Your task to perform on an android device: What's the weather going to be this weekend? Image 0: 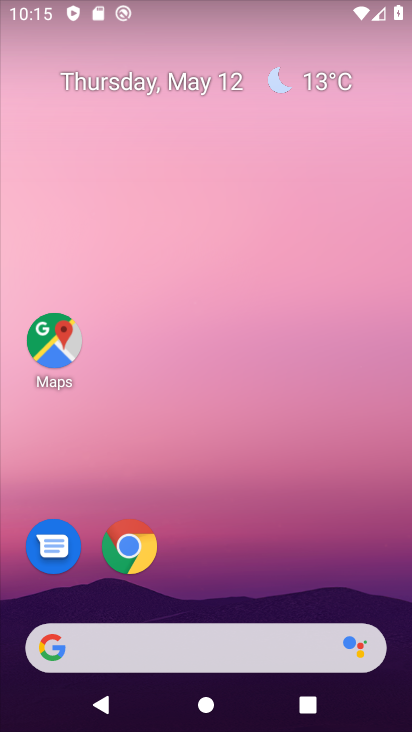
Step 0: drag from (263, 658) to (238, 282)
Your task to perform on an android device: What's the weather going to be this weekend? Image 1: 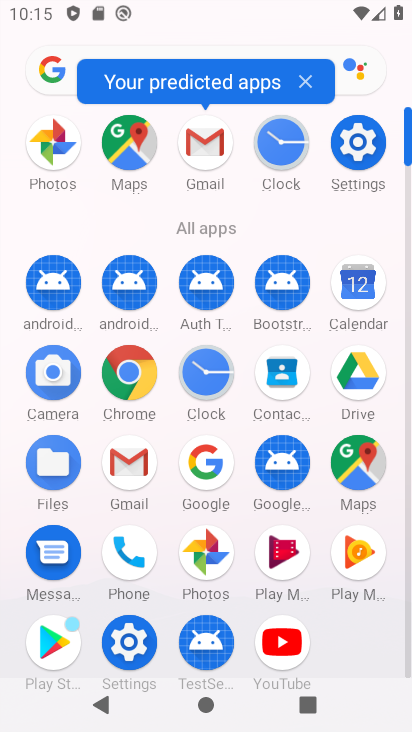
Step 1: click (308, 84)
Your task to perform on an android device: What's the weather going to be this weekend? Image 2: 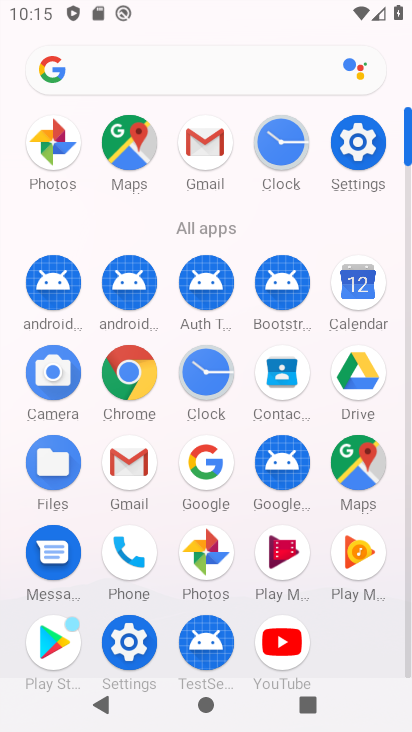
Step 2: click (158, 78)
Your task to perform on an android device: What's the weather going to be this weekend? Image 3: 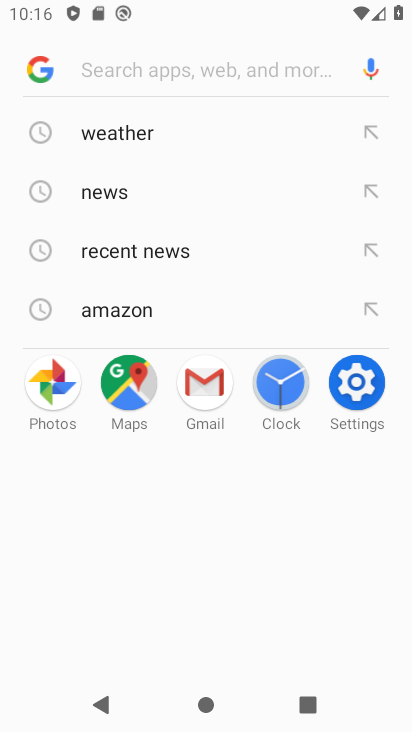
Step 3: click (188, 133)
Your task to perform on an android device: What's the weather going to be this weekend? Image 4: 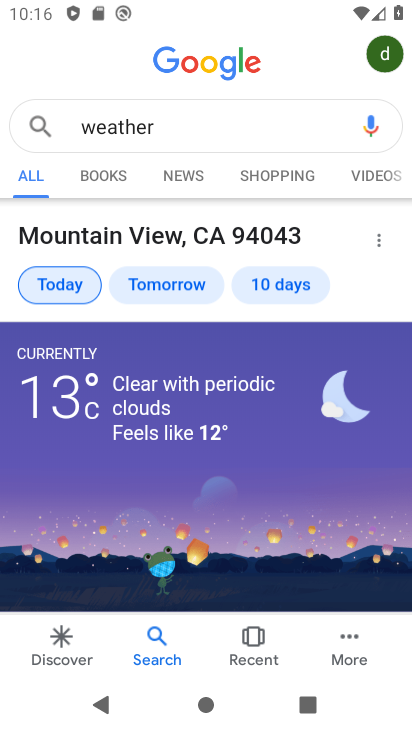
Step 4: click (251, 276)
Your task to perform on an android device: What's the weather going to be this weekend? Image 5: 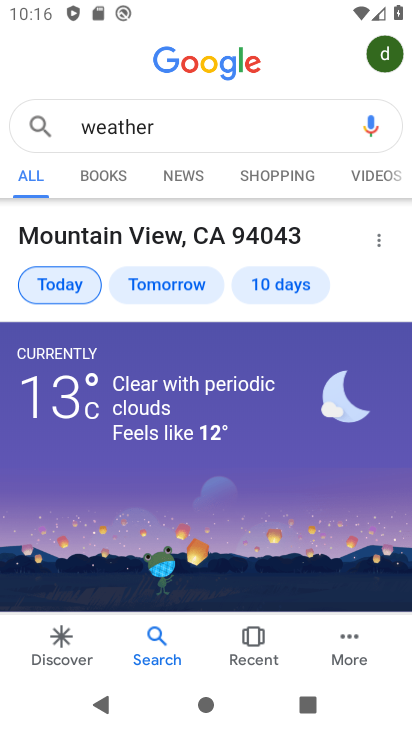
Step 5: click (277, 274)
Your task to perform on an android device: What's the weather going to be this weekend? Image 6: 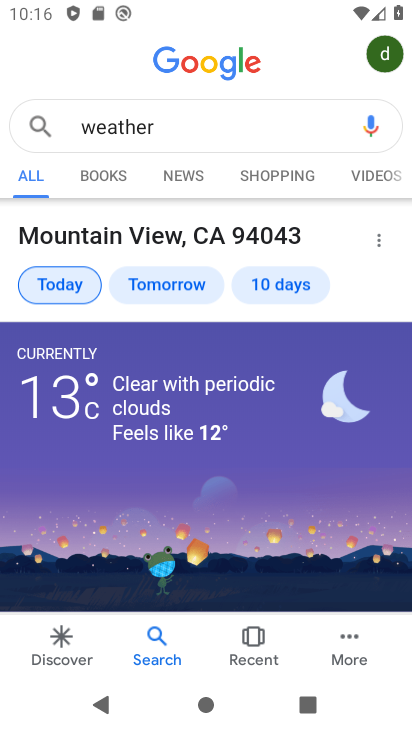
Step 6: click (280, 275)
Your task to perform on an android device: What's the weather going to be this weekend? Image 7: 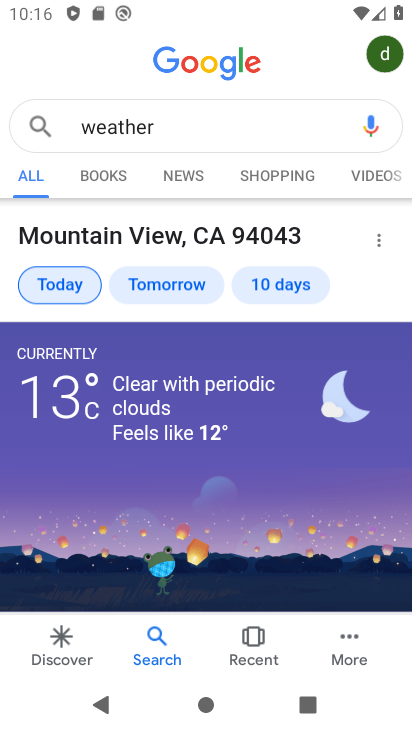
Step 7: click (282, 287)
Your task to perform on an android device: What's the weather going to be this weekend? Image 8: 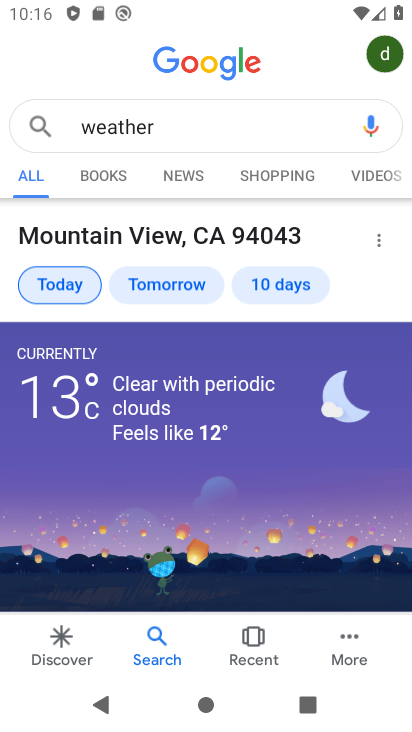
Step 8: drag from (230, 462) to (342, 186)
Your task to perform on an android device: What's the weather going to be this weekend? Image 9: 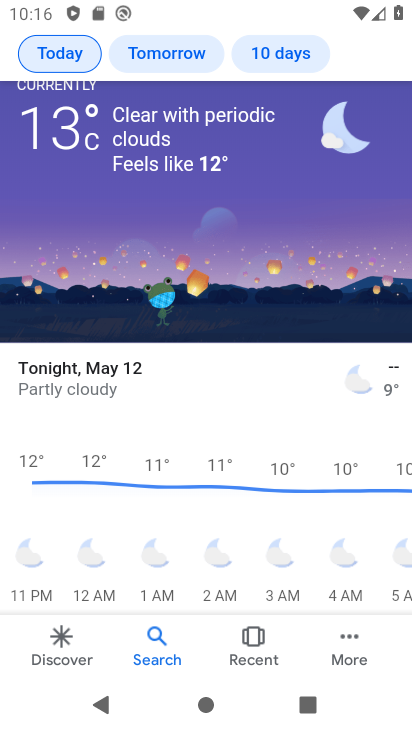
Step 9: drag from (186, 518) to (231, 283)
Your task to perform on an android device: What's the weather going to be this weekend? Image 10: 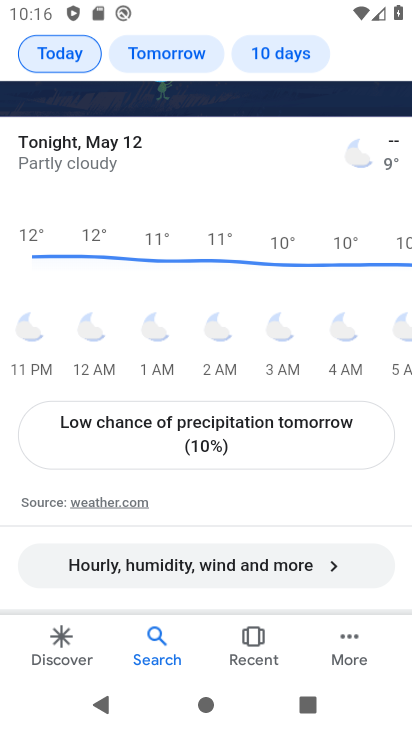
Step 10: drag from (209, 528) to (252, 275)
Your task to perform on an android device: What's the weather going to be this weekend? Image 11: 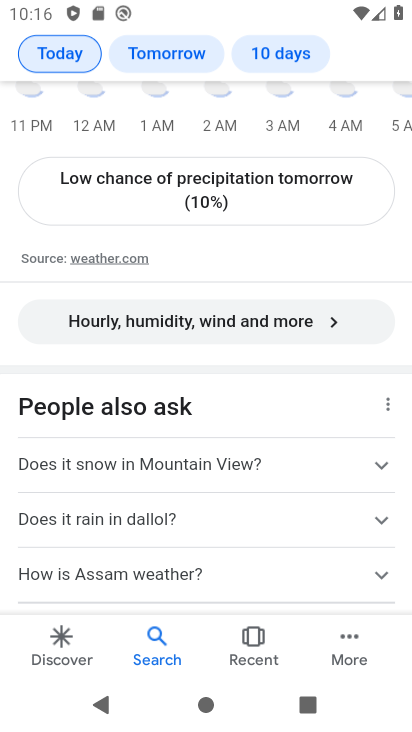
Step 11: drag from (153, 514) to (222, 264)
Your task to perform on an android device: What's the weather going to be this weekend? Image 12: 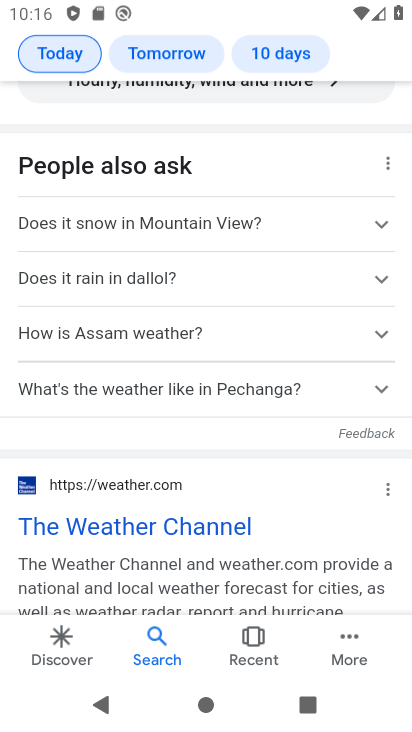
Step 12: click (172, 519)
Your task to perform on an android device: What's the weather going to be this weekend? Image 13: 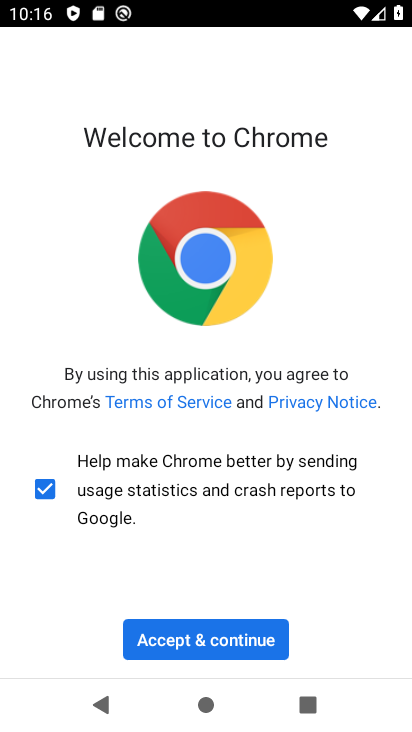
Step 13: click (207, 646)
Your task to perform on an android device: What's the weather going to be this weekend? Image 14: 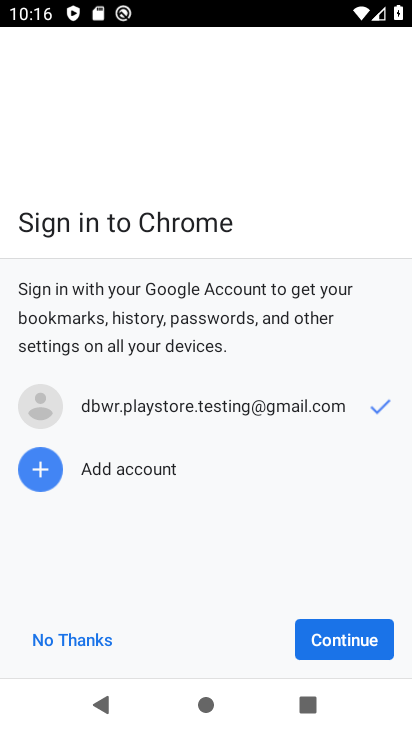
Step 14: click (378, 620)
Your task to perform on an android device: What's the weather going to be this weekend? Image 15: 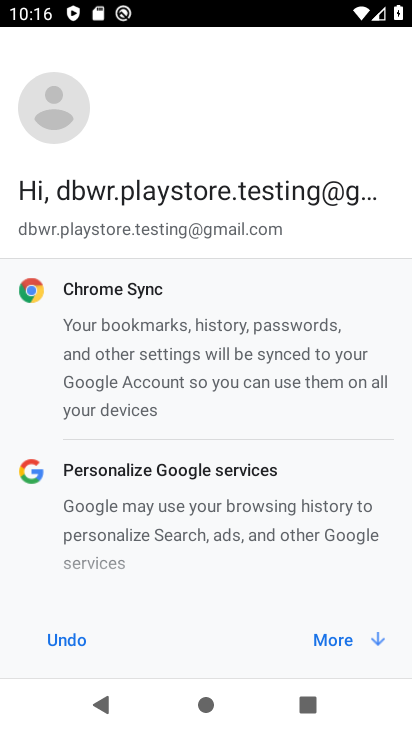
Step 15: click (349, 640)
Your task to perform on an android device: What's the weather going to be this weekend? Image 16: 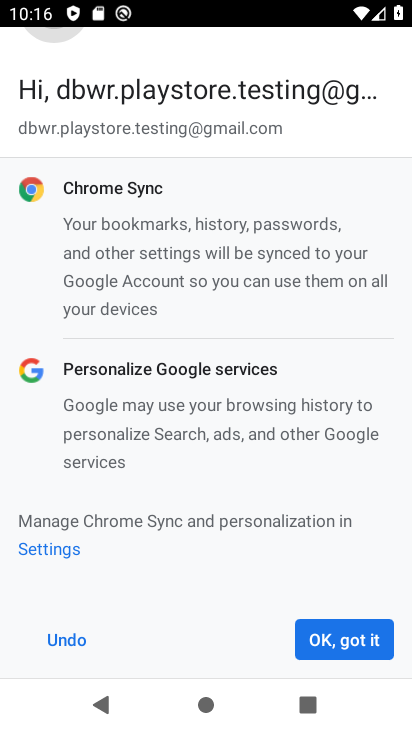
Step 16: click (353, 630)
Your task to perform on an android device: What's the weather going to be this weekend? Image 17: 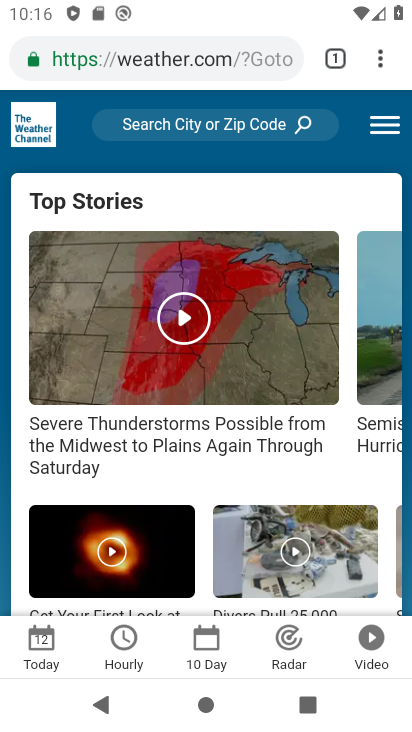
Step 17: click (212, 645)
Your task to perform on an android device: What's the weather going to be this weekend? Image 18: 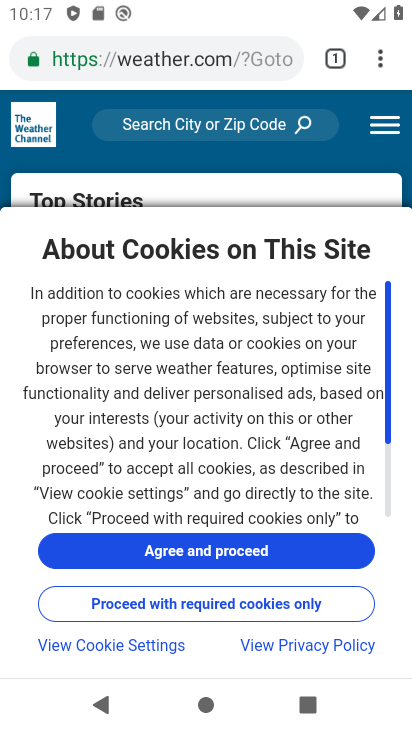
Step 18: click (225, 535)
Your task to perform on an android device: What's the weather going to be this weekend? Image 19: 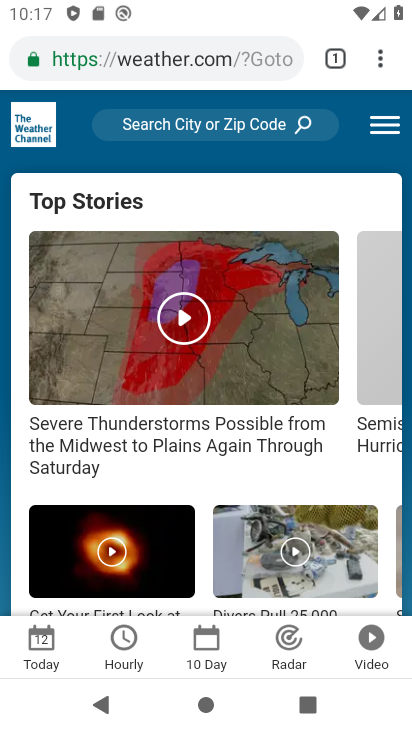
Step 19: task complete